Your task to perform on an android device: Go to Android settings Image 0: 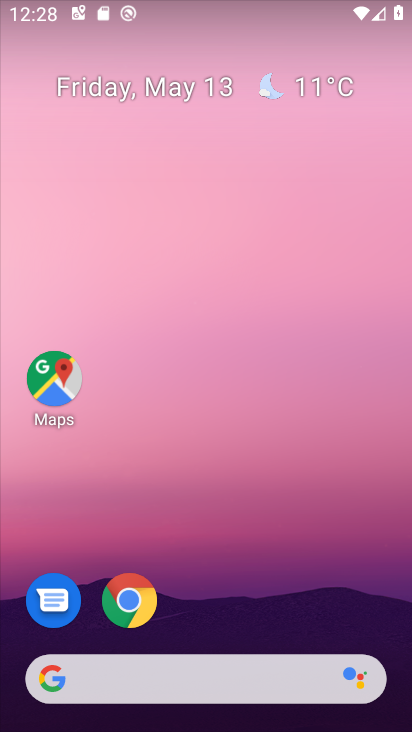
Step 0: drag from (184, 539) to (218, 57)
Your task to perform on an android device: Go to Android settings Image 1: 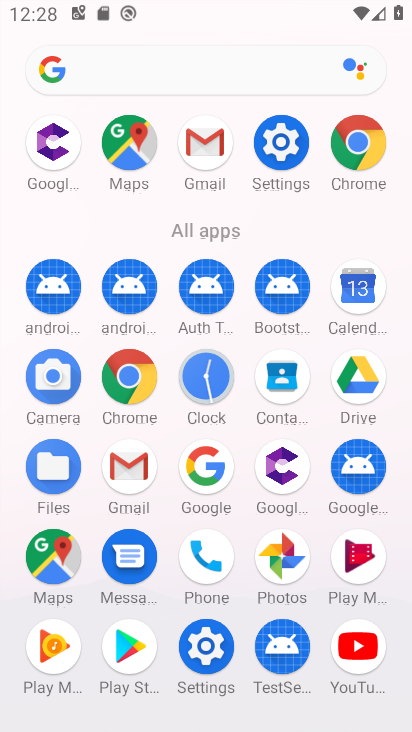
Step 1: click (277, 167)
Your task to perform on an android device: Go to Android settings Image 2: 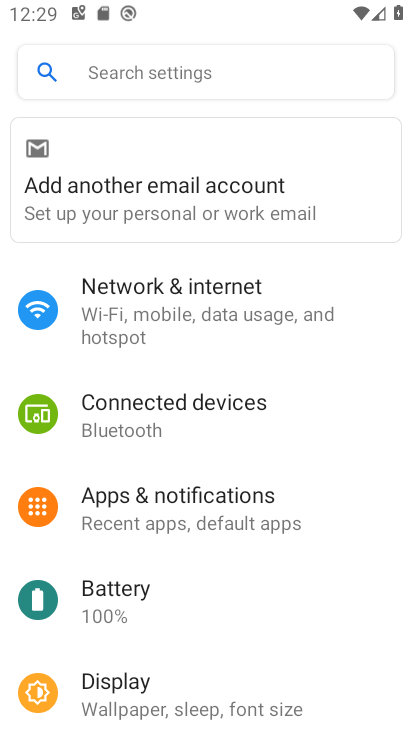
Step 2: task complete